Your task to perform on an android device: open app "Indeed Job Search" Image 0: 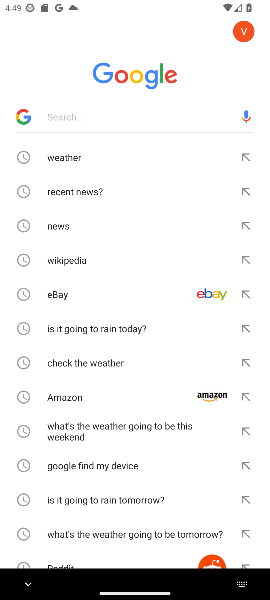
Step 0: press home button
Your task to perform on an android device: open app "Indeed Job Search" Image 1: 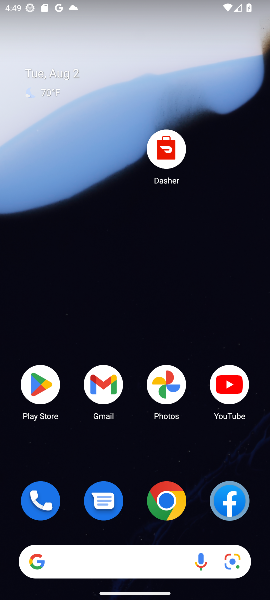
Step 1: click (37, 388)
Your task to perform on an android device: open app "Indeed Job Search" Image 2: 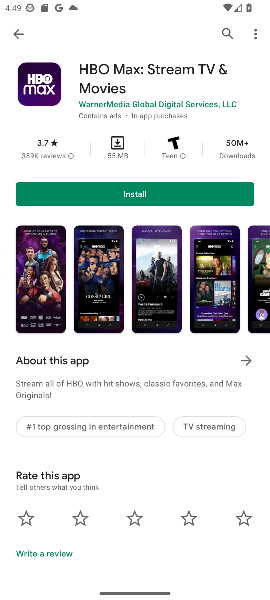
Step 2: click (229, 33)
Your task to perform on an android device: open app "Indeed Job Search" Image 3: 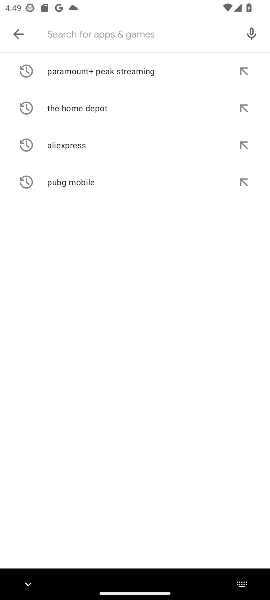
Step 3: type "Indeed Job Search"
Your task to perform on an android device: open app "Indeed Job Search" Image 4: 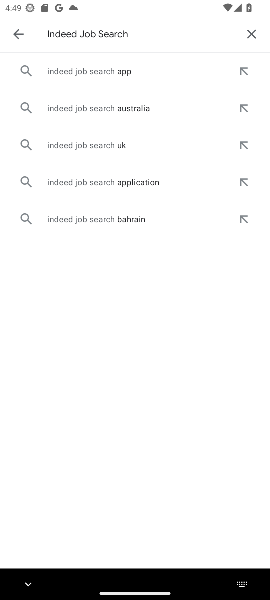
Step 4: click (101, 77)
Your task to perform on an android device: open app "Indeed Job Search" Image 5: 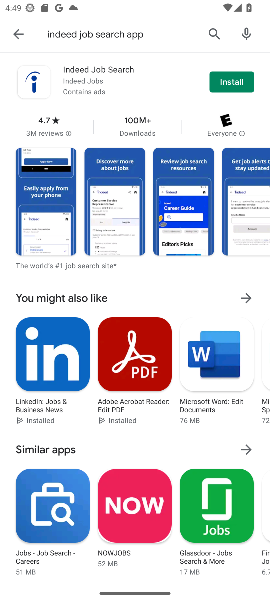
Step 5: task complete